Your task to perform on an android device: Open Chrome and go to settings Image 0: 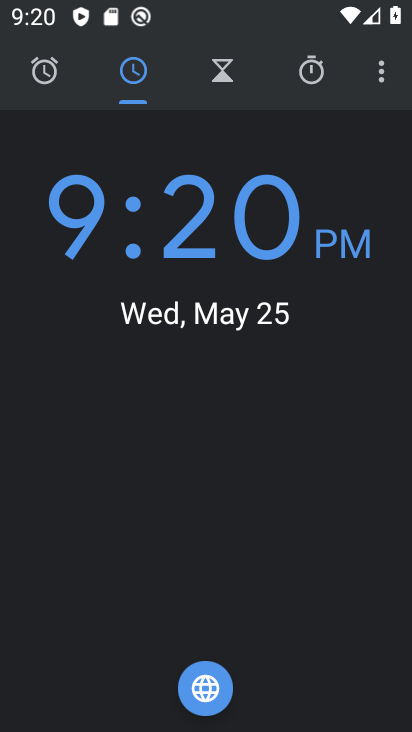
Step 0: click (355, 471)
Your task to perform on an android device: Open Chrome and go to settings Image 1: 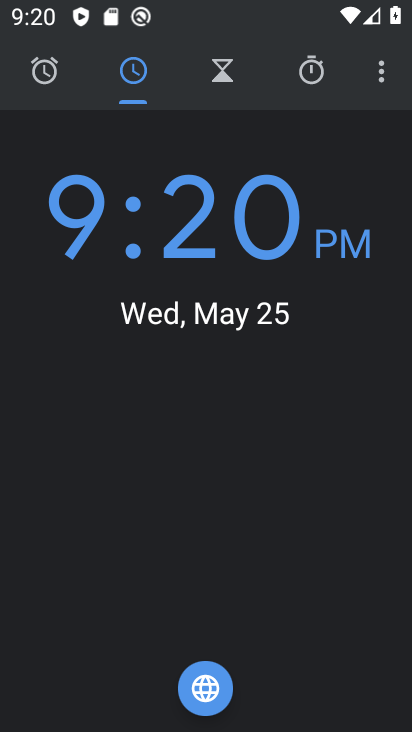
Step 1: press home button
Your task to perform on an android device: Open Chrome and go to settings Image 2: 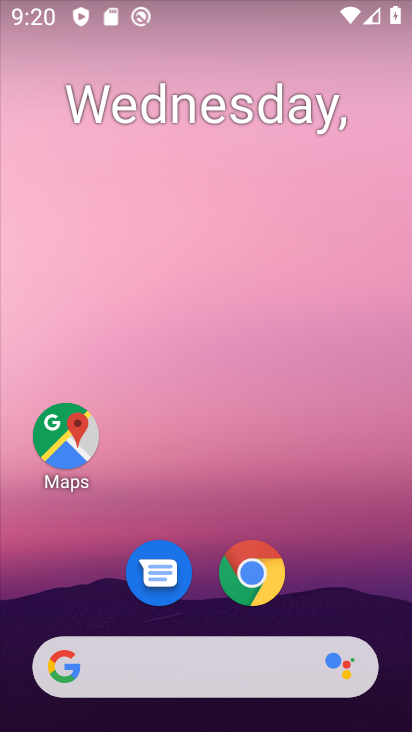
Step 2: click (258, 567)
Your task to perform on an android device: Open Chrome and go to settings Image 3: 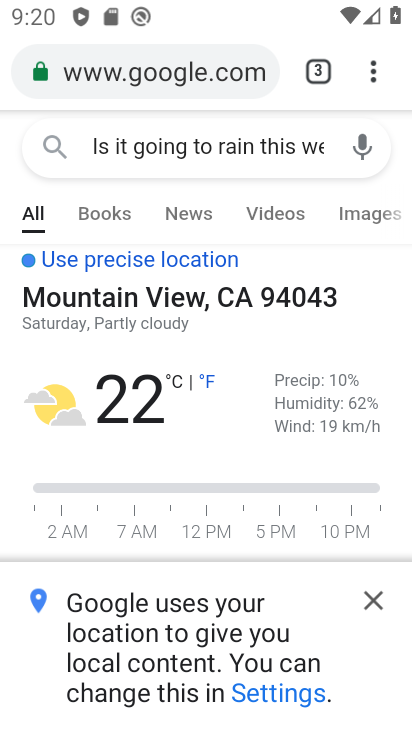
Step 3: click (367, 61)
Your task to perform on an android device: Open Chrome and go to settings Image 4: 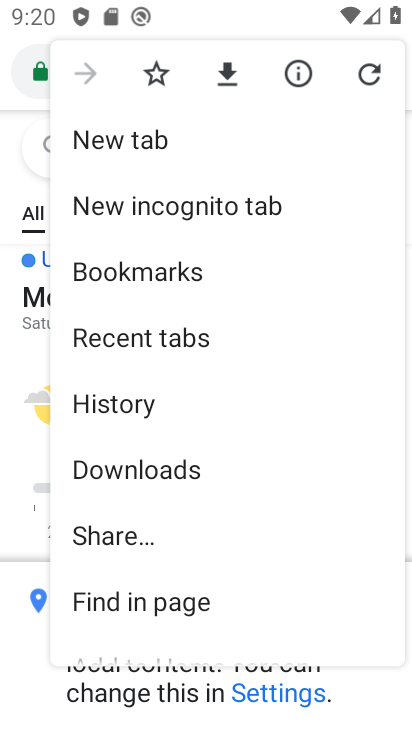
Step 4: drag from (195, 561) to (240, 228)
Your task to perform on an android device: Open Chrome and go to settings Image 5: 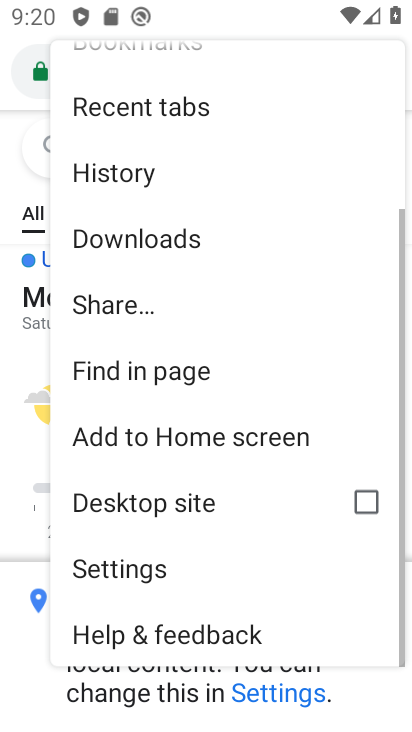
Step 5: click (154, 560)
Your task to perform on an android device: Open Chrome and go to settings Image 6: 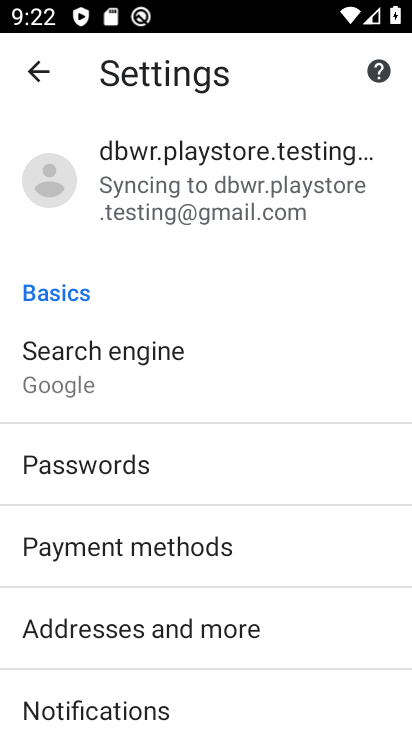
Step 6: task complete